Your task to perform on an android device: find snoozed emails in the gmail app Image 0: 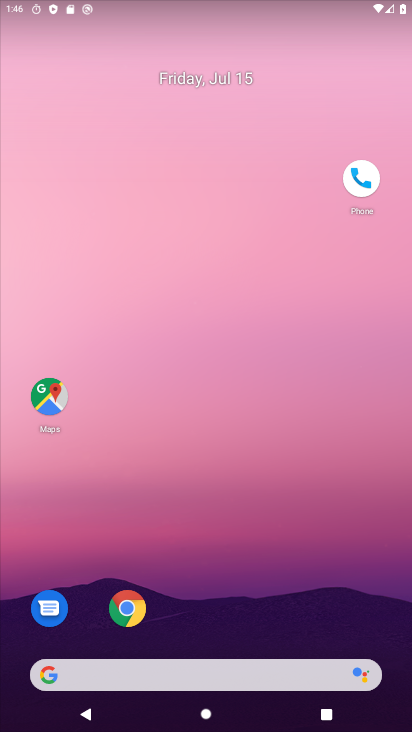
Step 0: drag from (205, 650) to (238, 204)
Your task to perform on an android device: find snoozed emails in the gmail app Image 1: 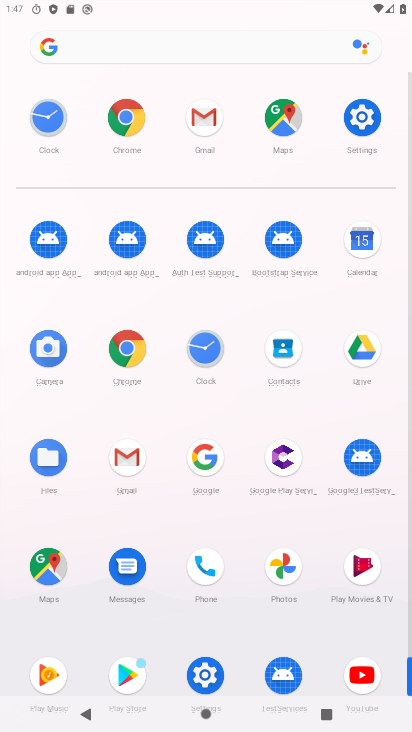
Step 1: click (138, 472)
Your task to perform on an android device: find snoozed emails in the gmail app Image 2: 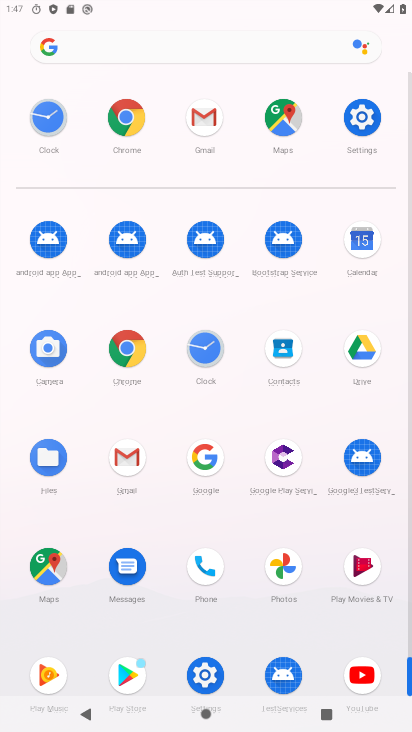
Step 2: click (137, 468)
Your task to perform on an android device: find snoozed emails in the gmail app Image 3: 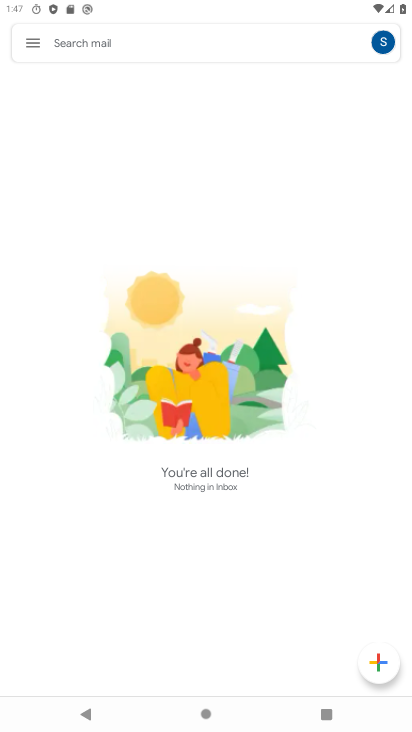
Step 3: click (34, 43)
Your task to perform on an android device: find snoozed emails in the gmail app Image 4: 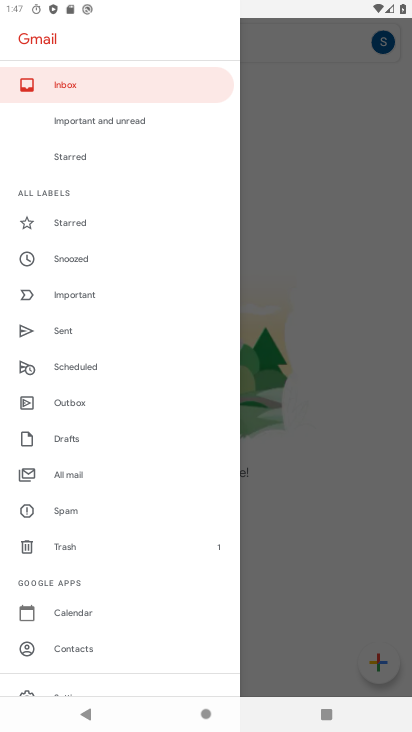
Step 4: click (81, 251)
Your task to perform on an android device: find snoozed emails in the gmail app Image 5: 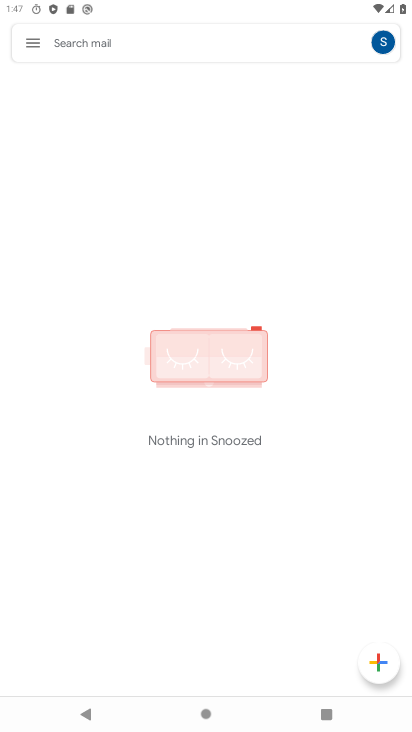
Step 5: task complete